Your task to perform on an android device: check battery use Image 0: 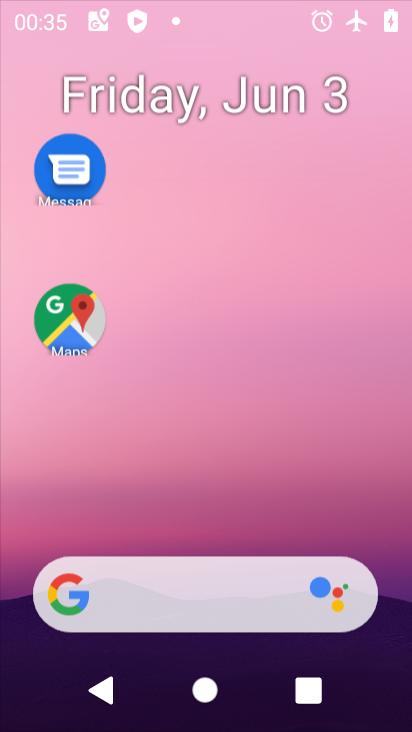
Step 0: press home button
Your task to perform on an android device: check battery use Image 1: 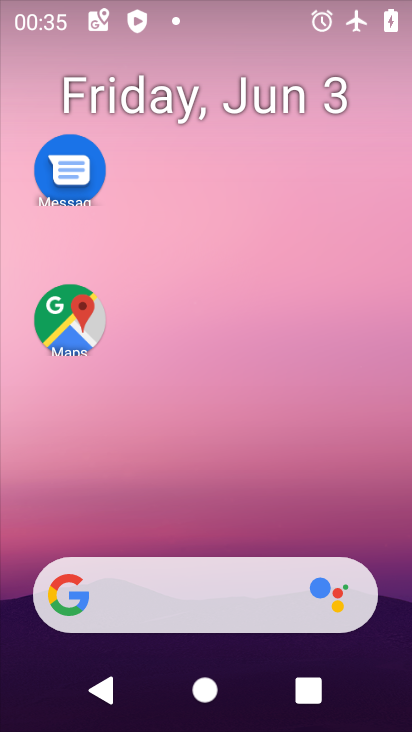
Step 1: drag from (223, 536) to (223, 67)
Your task to perform on an android device: check battery use Image 2: 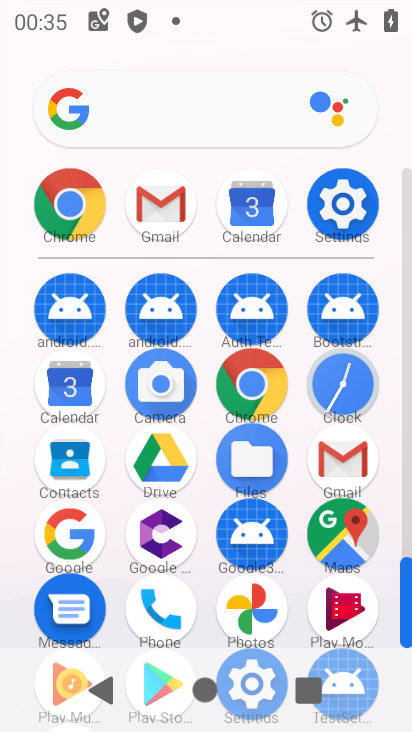
Step 2: click (336, 197)
Your task to perform on an android device: check battery use Image 3: 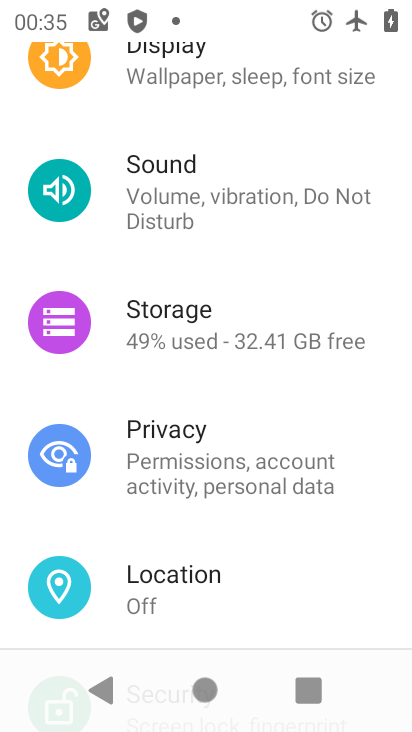
Step 3: drag from (241, 179) to (156, 709)
Your task to perform on an android device: check battery use Image 4: 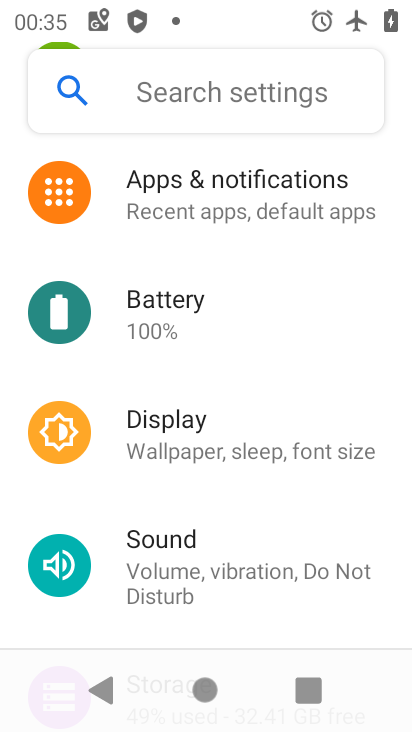
Step 4: drag from (233, 282) to (211, 440)
Your task to perform on an android device: check battery use Image 5: 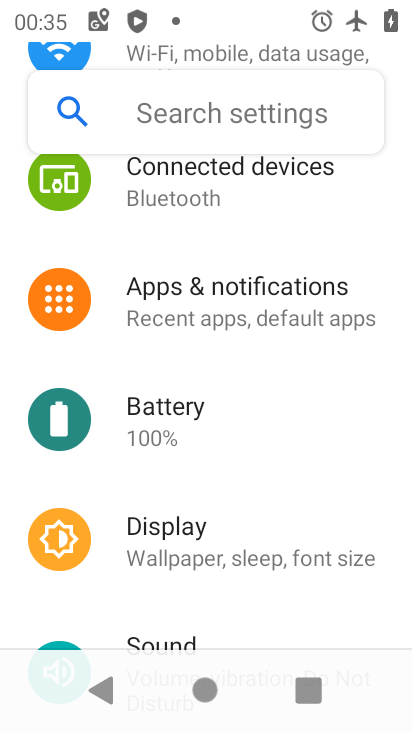
Step 5: click (175, 440)
Your task to perform on an android device: check battery use Image 6: 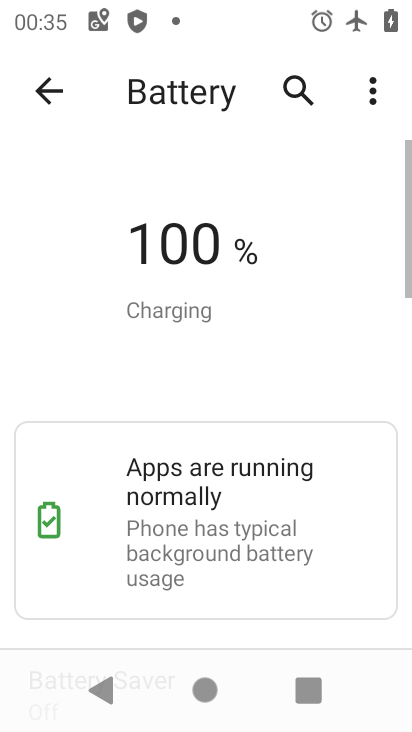
Step 6: task complete